Your task to perform on an android device: turn off javascript in the chrome app Image 0: 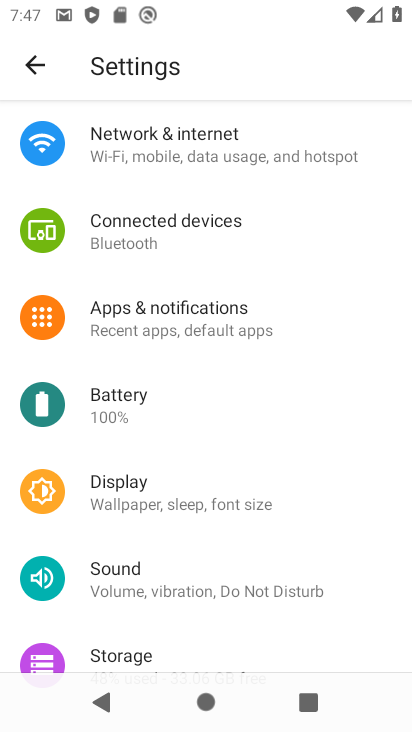
Step 0: press back button
Your task to perform on an android device: turn off javascript in the chrome app Image 1: 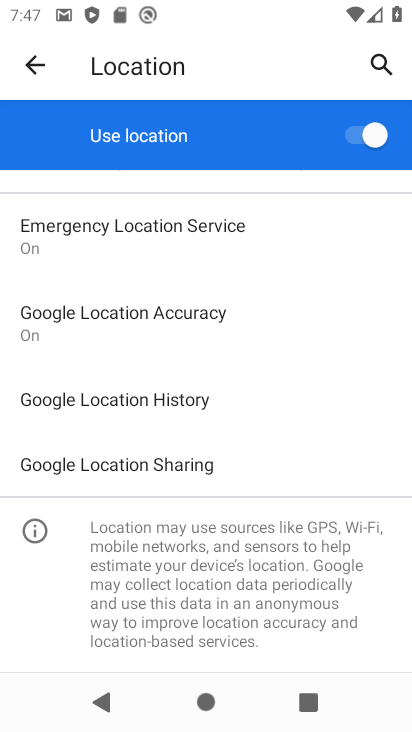
Step 1: press home button
Your task to perform on an android device: turn off javascript in the chrome app Image 2: 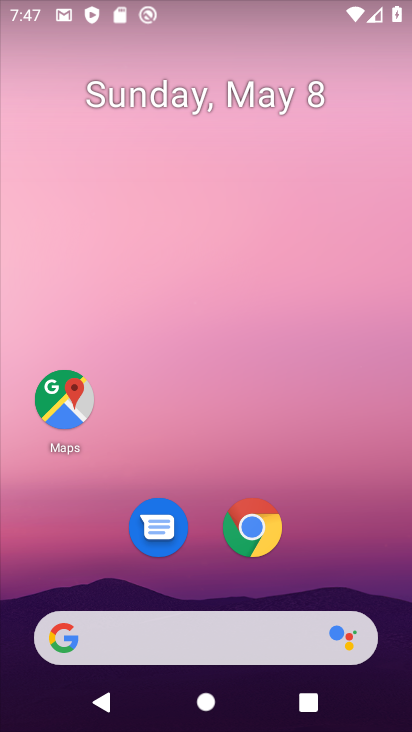
Step 2: drag from (304, 574) to (293, 10)
Your task to perform on an android device: turn off javascript in the chrome app Image 3: 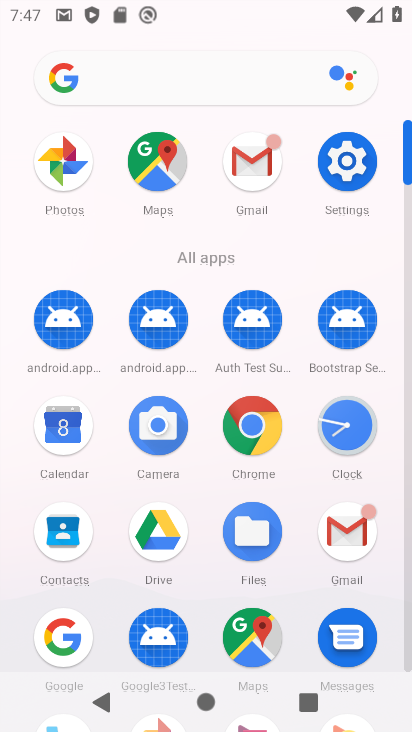
Step 3: click (252, 423)
Your task to perform on an android device: turn off javascript in the chrome app Image 4: 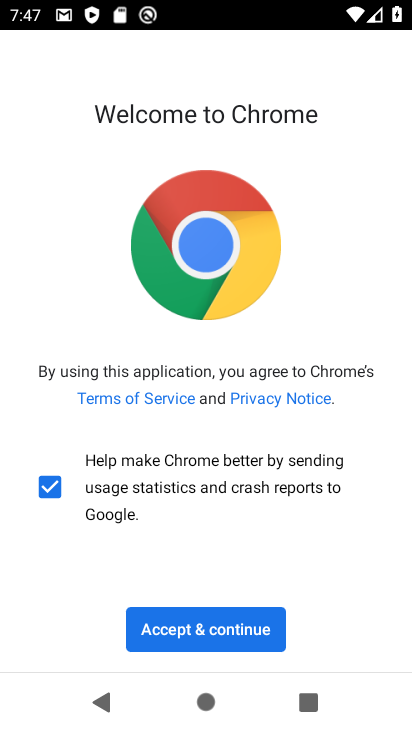
Step 4: click (198, 630)
Your task to perform on an android device: turn off javascript in the chrome app Image 5: 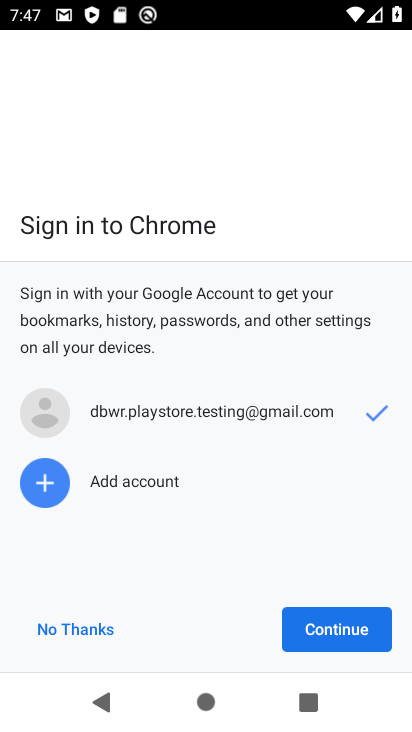
Step 5: click (336, 632)
Your task to perform on an android device: turn off javascript in the chrome app Image 6: 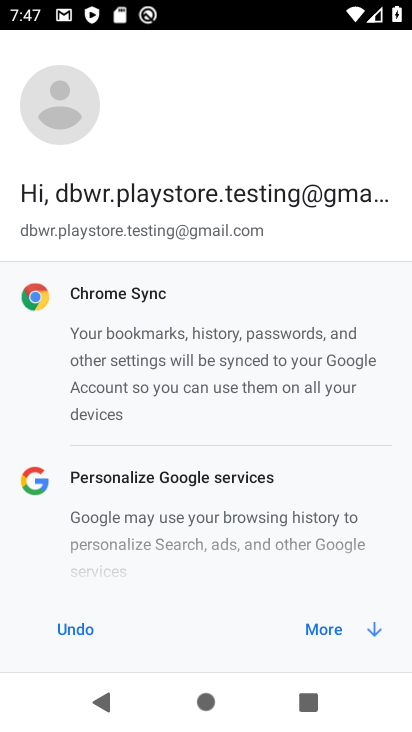
Step 6: click (337, 628)
Your task to perform on an android device: turn off javascript in the chrome app Image 7: 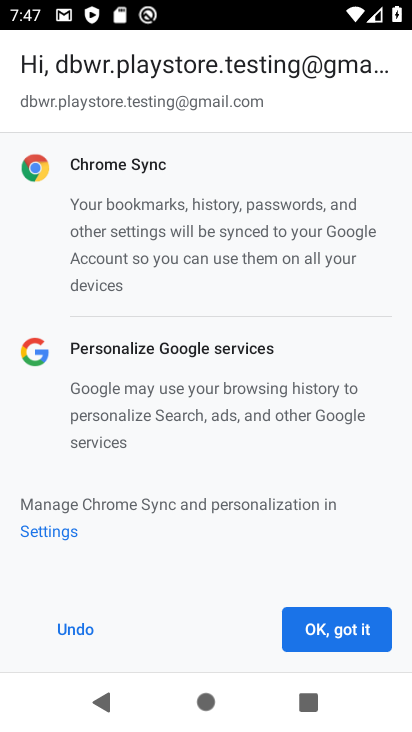
Step 7: click (337, 628)
Your task to perform on an android device: turn off javascript in the chrome app Image 8: 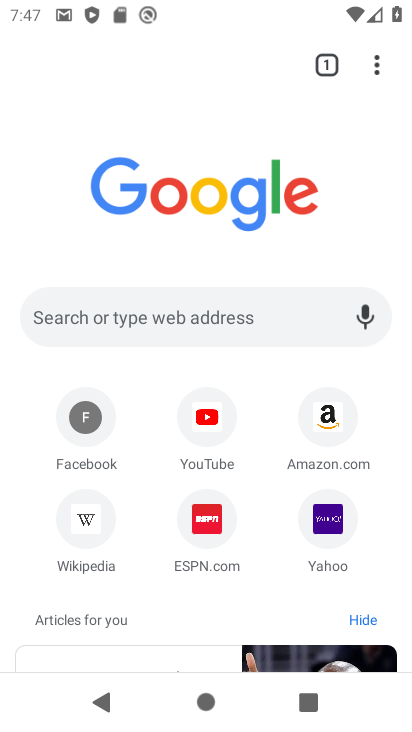
Step 8: drag from (372, 64) to (144, 549)
Your task to perform on an android device: turn off javascript in the chrome app Image 9: 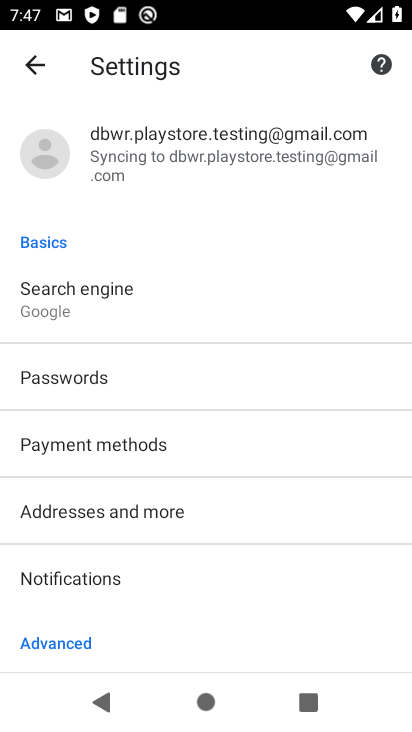
Step 9: drag from (221, 561) to (278, 148)
Your task to perform on an android device: turn off javascript in the chrome app Image 10: 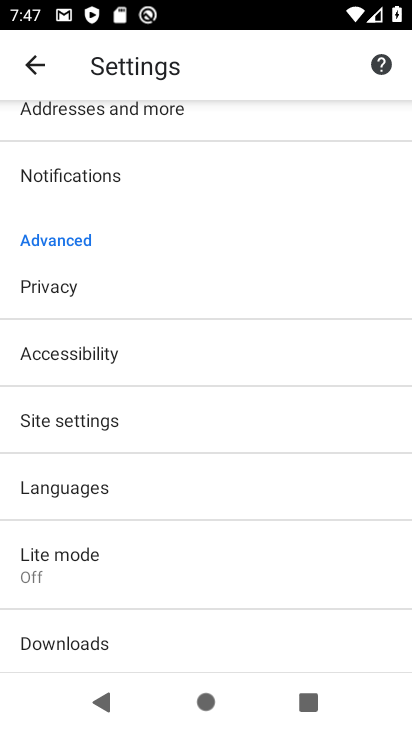
Step 10: drag from (173, 555) to (237, 238)
Your task to perform on an android device: turn off javascript in the chrome app Image 11: 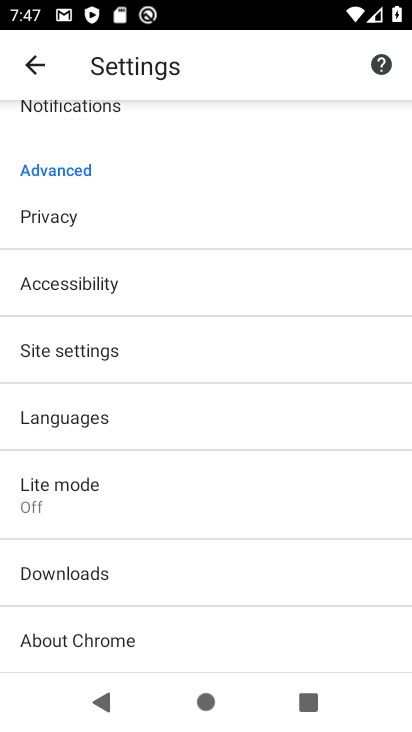
Step 11: click (118, 352)
Your task to perform on an android device: turn off javascript in the chrome app Image 12: 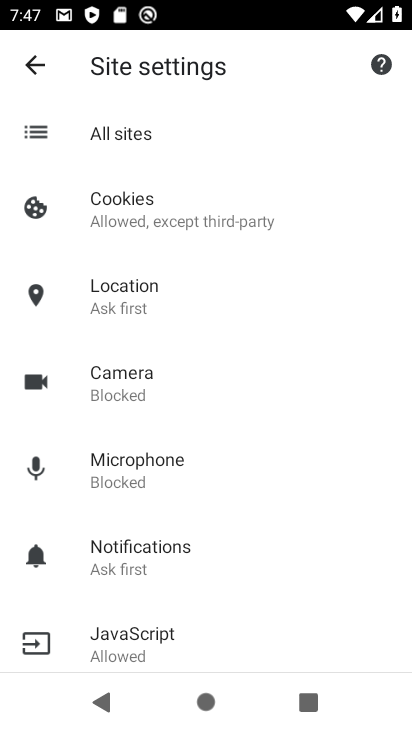
Step 12: drag from (270, 564) to (299, 208)
Your task to perform on an android device: turn off javascript in the chrome app Image 13: 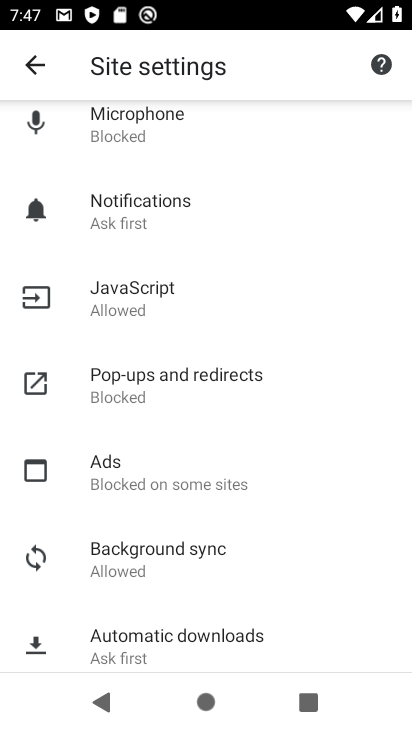
Step 13: click (186, 292)
Your task to perform on an android device: turn off javascript in the chrome app Image 14: 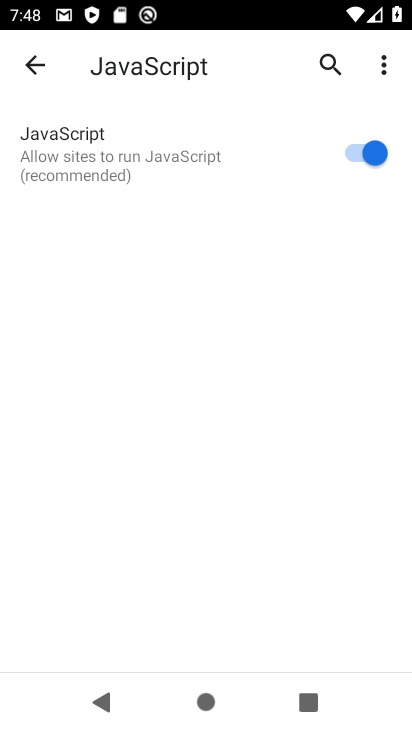
Step 14: click (343, 152)
Your task to perform on an android device: turn off javascript in the chrome app Image 15: 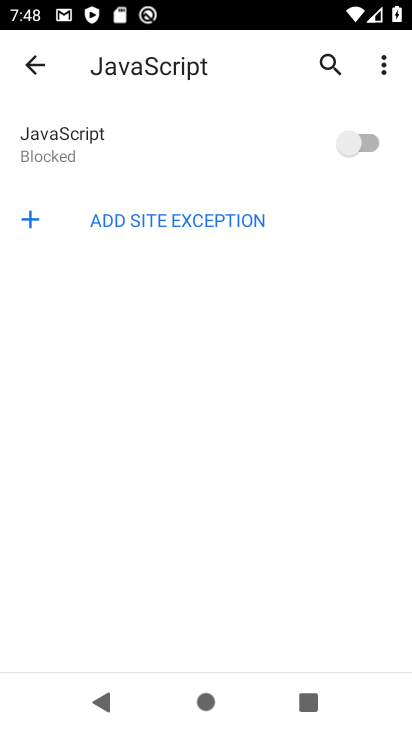
Step 15: task complete